Your task to perform on an android device: Show me the alarms in the clock app Image 0: 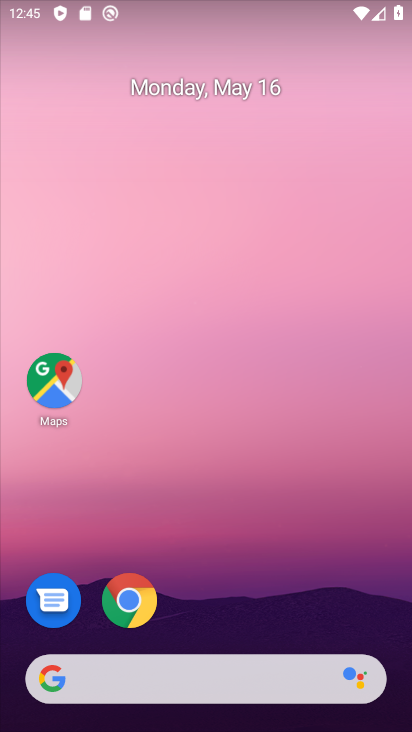
Step 0: drag from (359, 607) to (344, 147)
Your task to perform on an android device: Show me the alarms in the clock app Image 1: 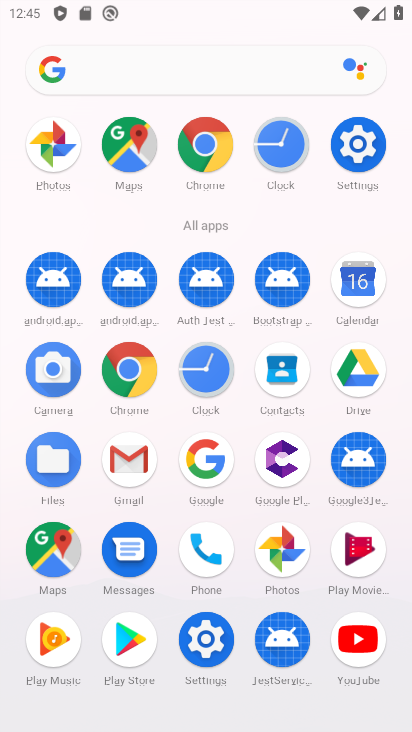
Step 1: click (195, 383)
Your task to perform on an android device: Show me the alarms in the clock app Image 2: 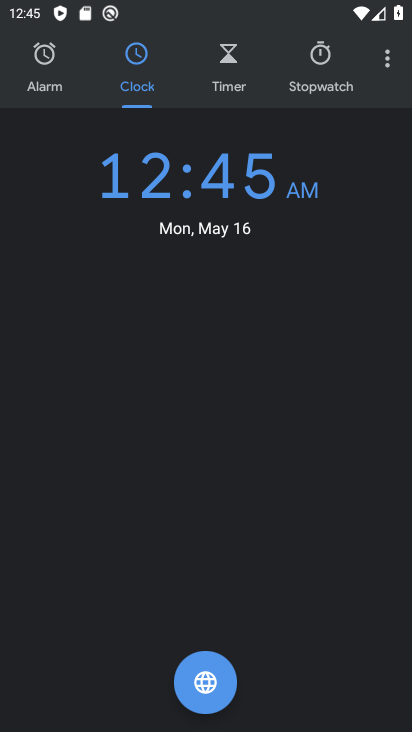
Step 2: click (55, 70)
Your task to perform on an android device: Show me the alarms in the clock app Image 3: 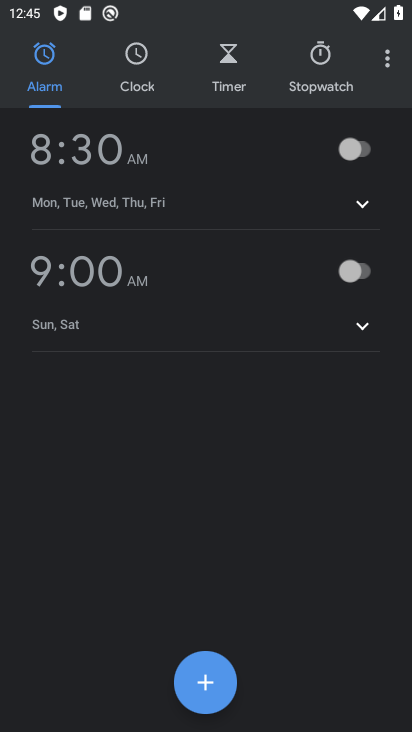
Step 3: task complete